Your task to perform on an android device: Go to notification settings Image 0: 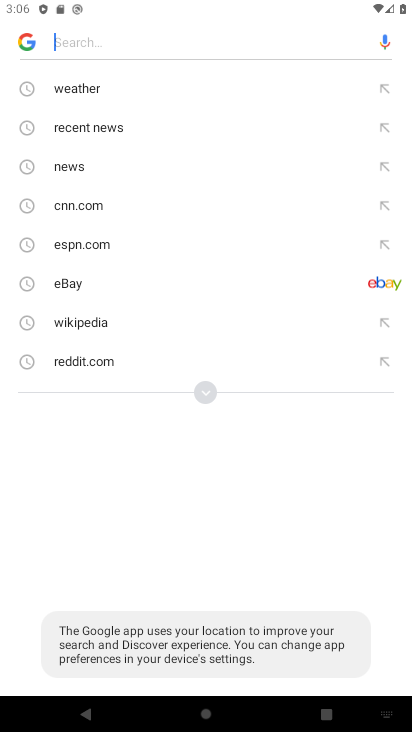
Step 0: press back button
Your task to perform on an android device: Go to notification settings Image 1: 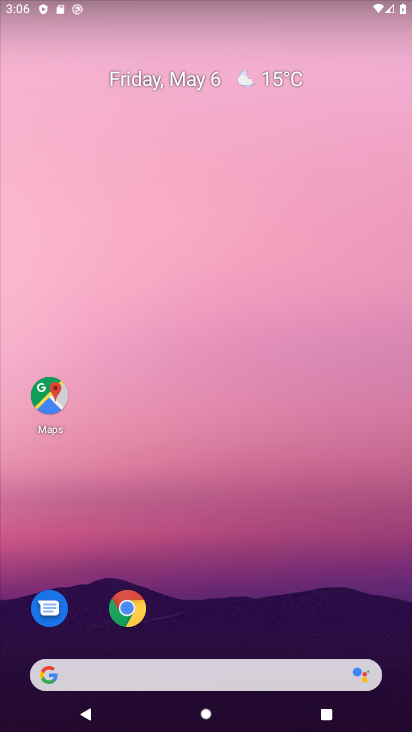
Step 1: drag from (198, 657) to (315, 49)
Your task to perform on an android device: Go to notification settings Image 2: 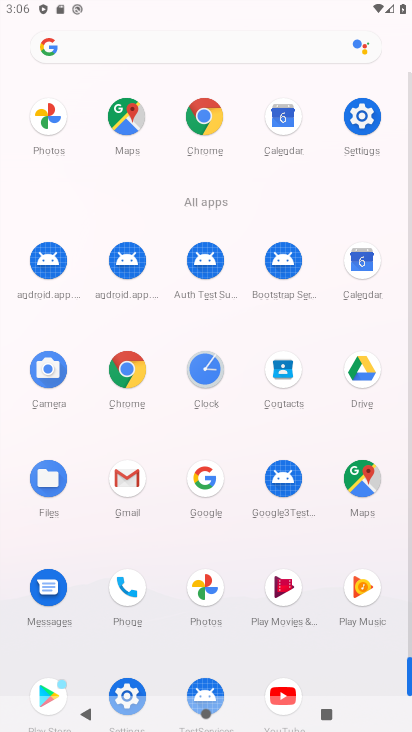
Step 2: drag from (104, 585) to (162, 354)
Your task to perform on an android device: Go to notification settings Image 3: 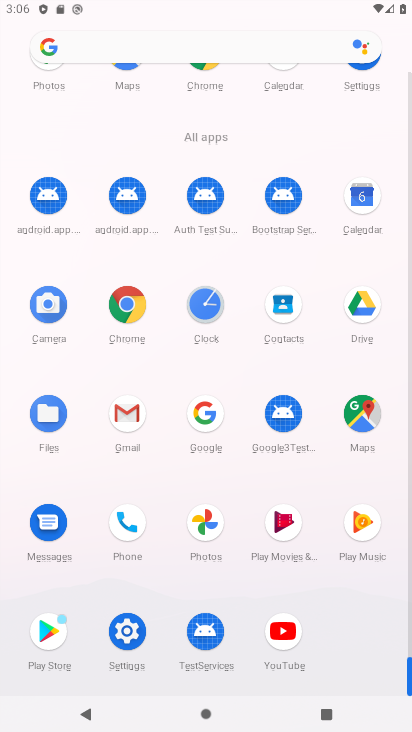
Step 3: click (133, 640)
Your task to perform on an android device: Go to notification settings Image 4: 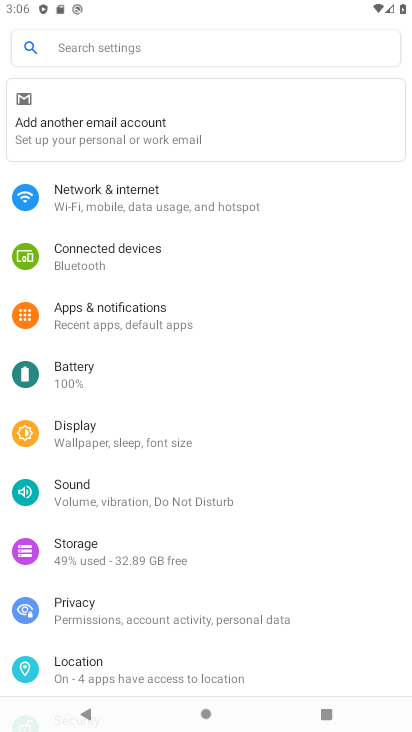
Step 4: click (151, 313)
Your task to perform on an android device: Go to notification settings Image 5: 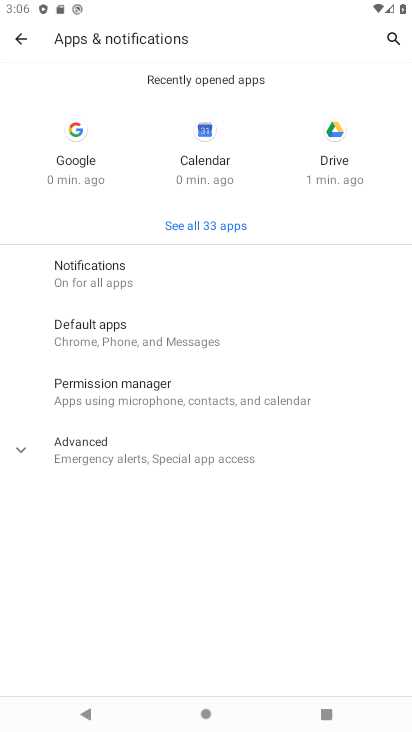
Step 5: click (133, 278)
Your task to perform on an android device: Go to notification settings Image 6: 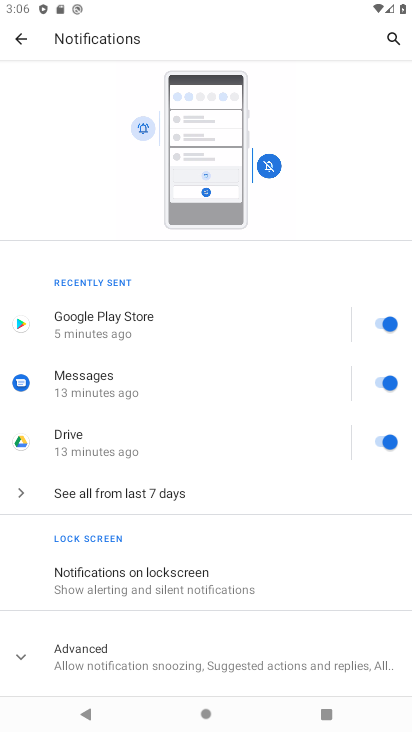
Step 6: task complete